Your task to perform on an android device: choose inbox layout in the gmail app Image 0: 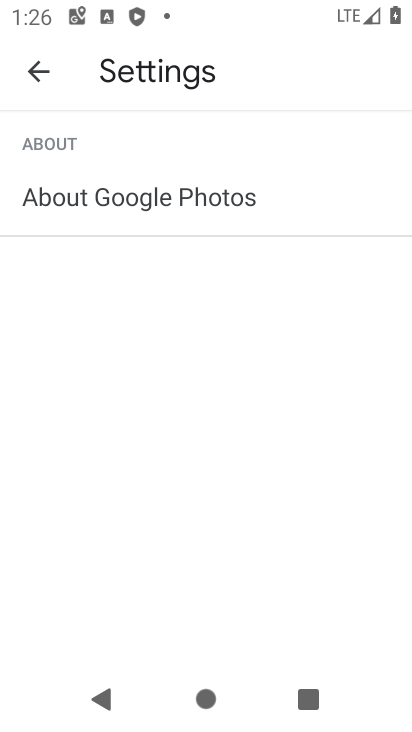
Step 0: press home button
Your task to perform on an android device: choose inbox layout in the gmail app Image 1: 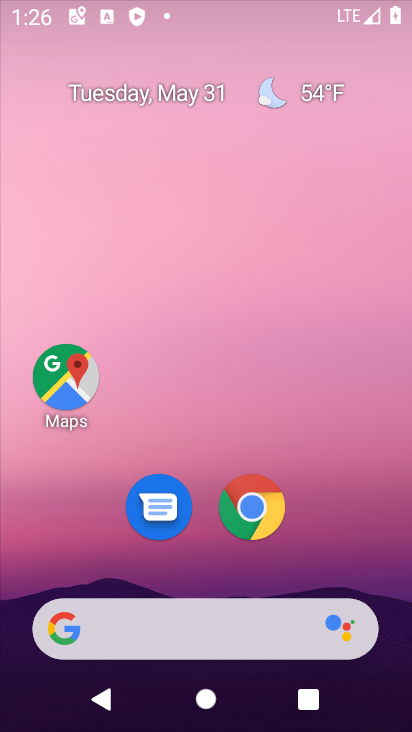
Step 1: drag from (389, 642) to (299, 26)
Your task to perform on an android device: choose inbox layout in the gmail app Image 2: 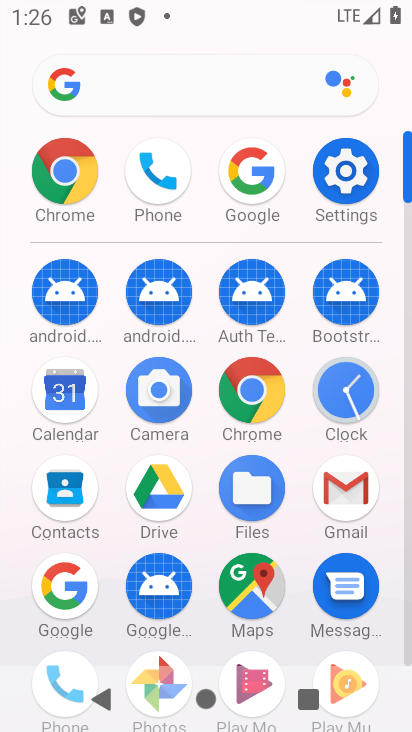
Step 2: click (317, 505)
Your task to perform on an android device: choose inbox layout in the gmail app Image 3: 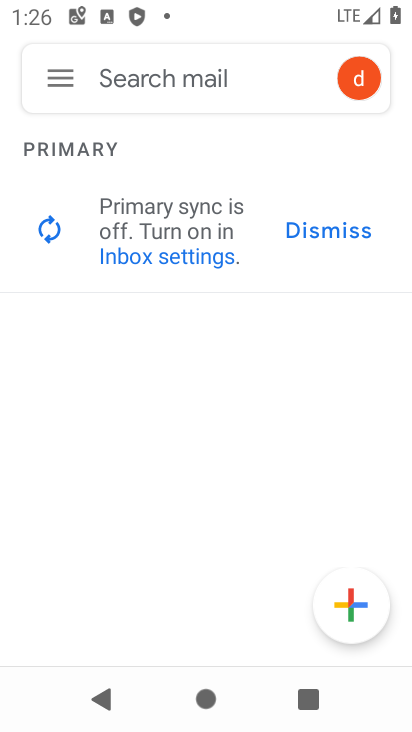
Step 3: task complete